Your task to perform on an android device: Go to Google Image 0: 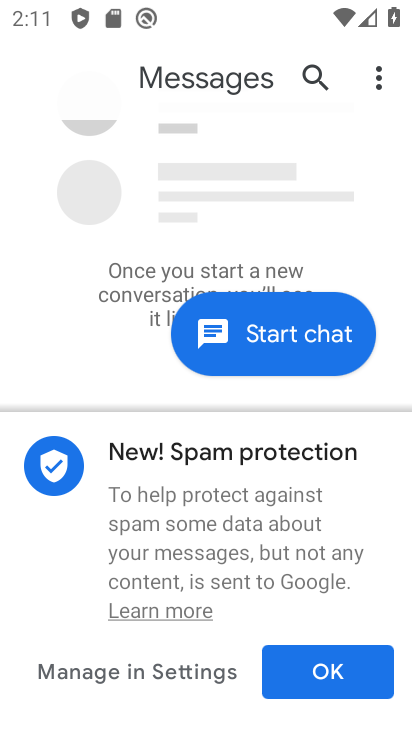
Step 0: press home button
Your task to perform on an android device: Go to Google Image 1: 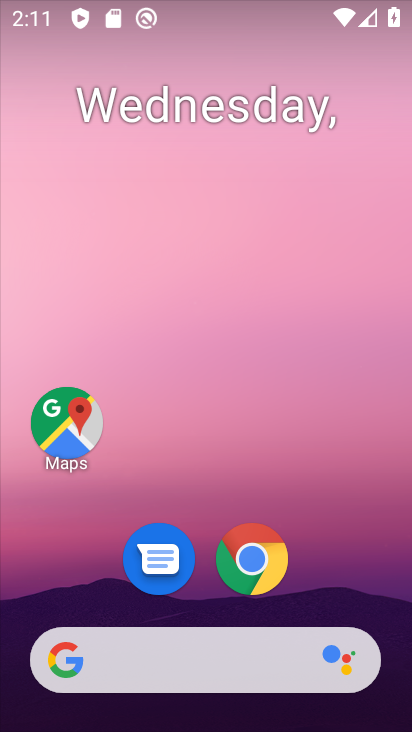
Step 1: drag from (370, 551) to (371, 125)
Your task to perform on an android device: Go to Google Image 2: 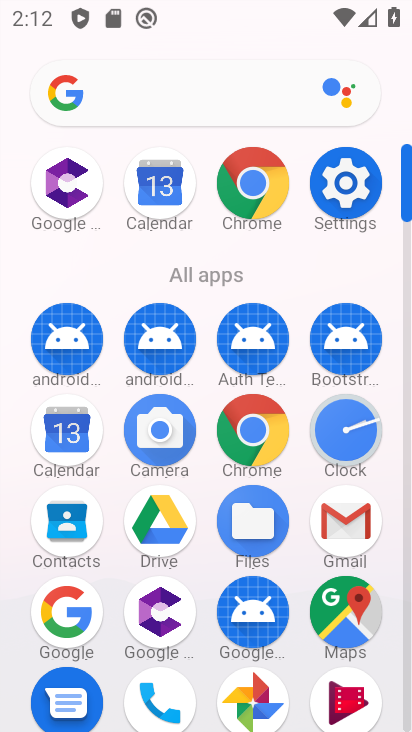
Step 2: click (70, 613)
Your task to perform on an android device: Go to Google Image 3: 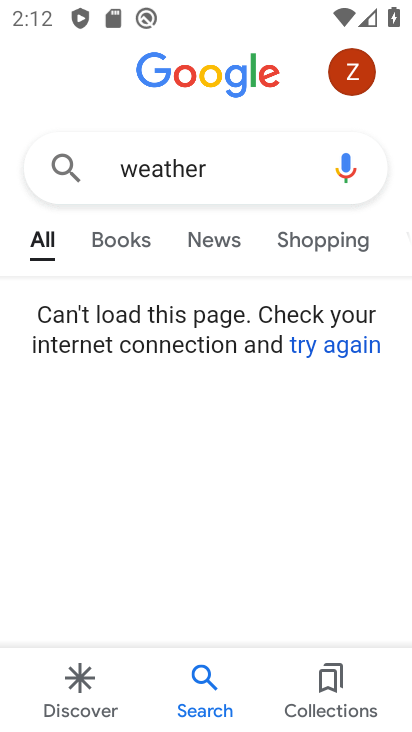
Step 3: task complete